Your task to perform on an android device: Search for vegetarian restaurants on Maps Image 0: 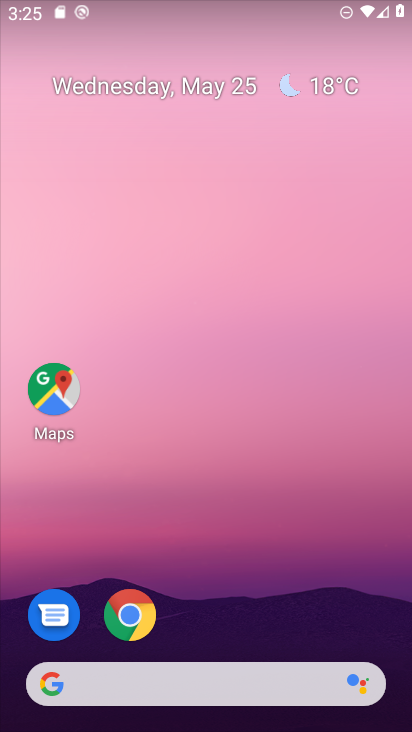
Step 0: click (46, 380)
Your task to perform on an android device: Search for vegetarian restaurants on Maps Image 1: 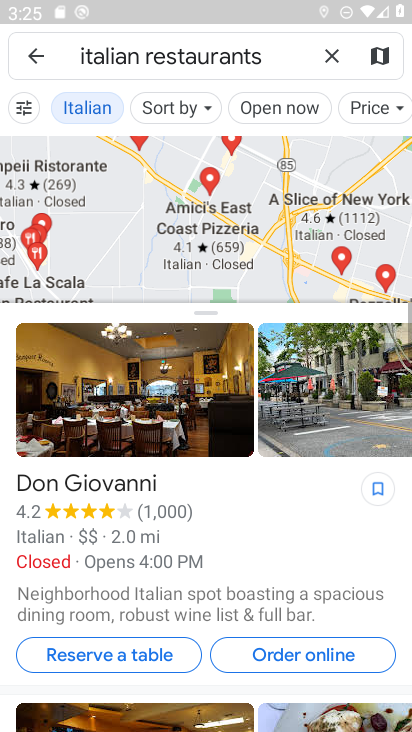
Step 1: click (329, 55)
Your task to perform on an android device: Search for vegetarian restaurants on Maps Image 2: 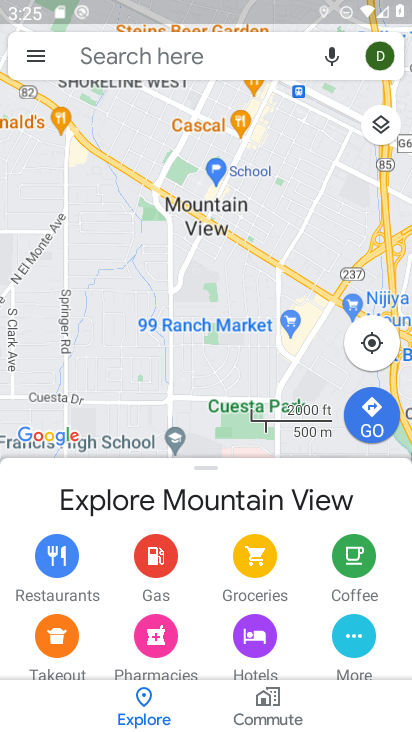
Step 2: click (277, 52)
Your task to perform on an android device: Search for vegetarian restaurants on Maps Image 3: 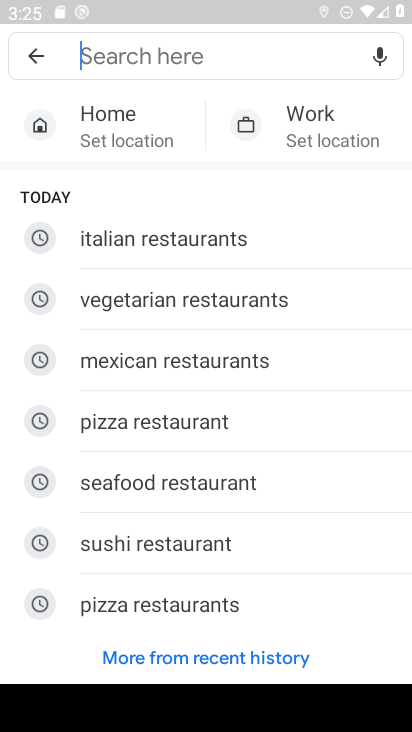
Step 3: click (182, 291)
Your task to perform on an android device: Search for vegetarian restaurants on Maps Image 4: 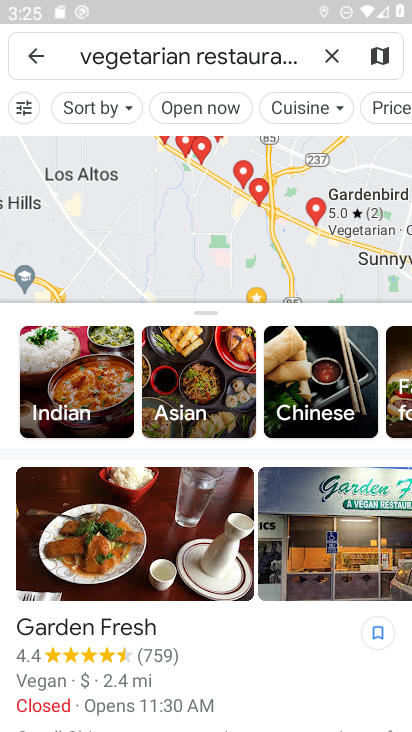
Step 4: task complete